Your task to perform on an android device: uninstall "Etsy: Buy & Sell Unique Items" Image 0: 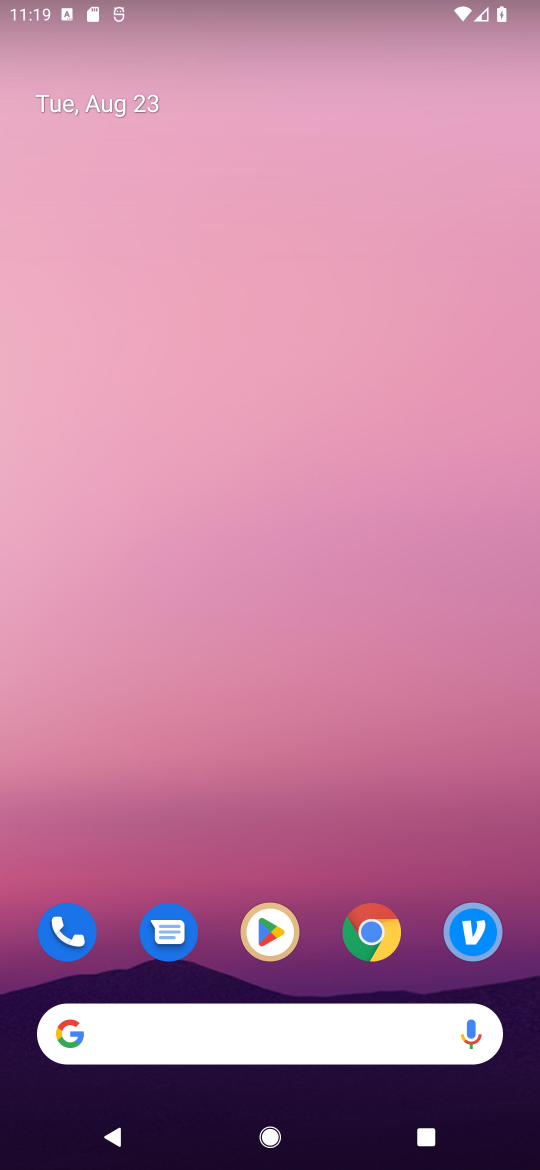
Step 0: click (264, 912)
Your task to perform on an android device: uninstall "Etsy: Buy & Sell Unique Items" Image 1: 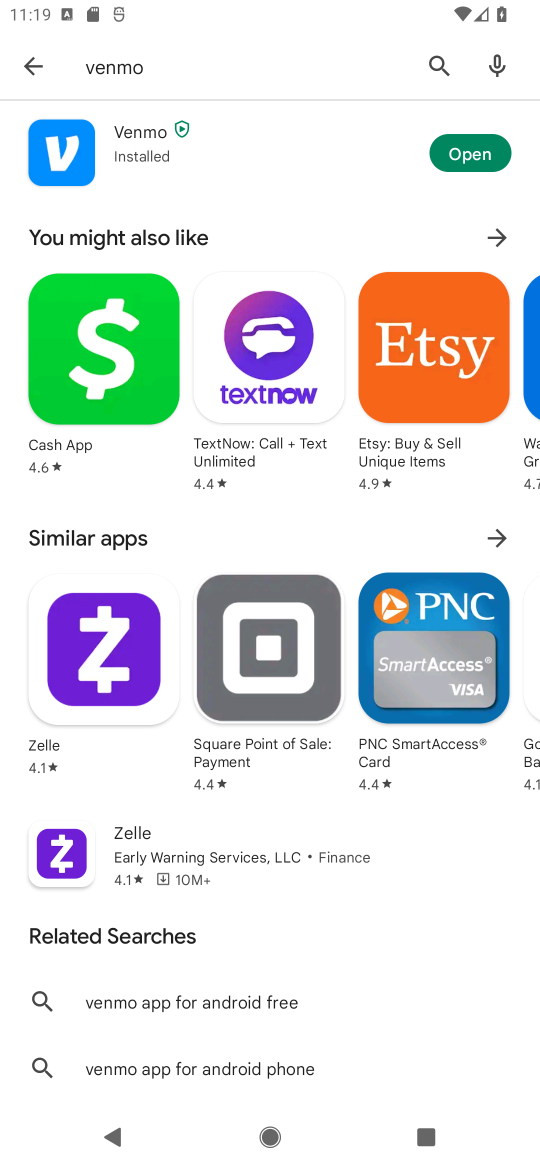
Step 1: click (441, 59)
Your task to perform on an android device: uninstall "Etsy: Buy & Sell Unique Items" Image 2: 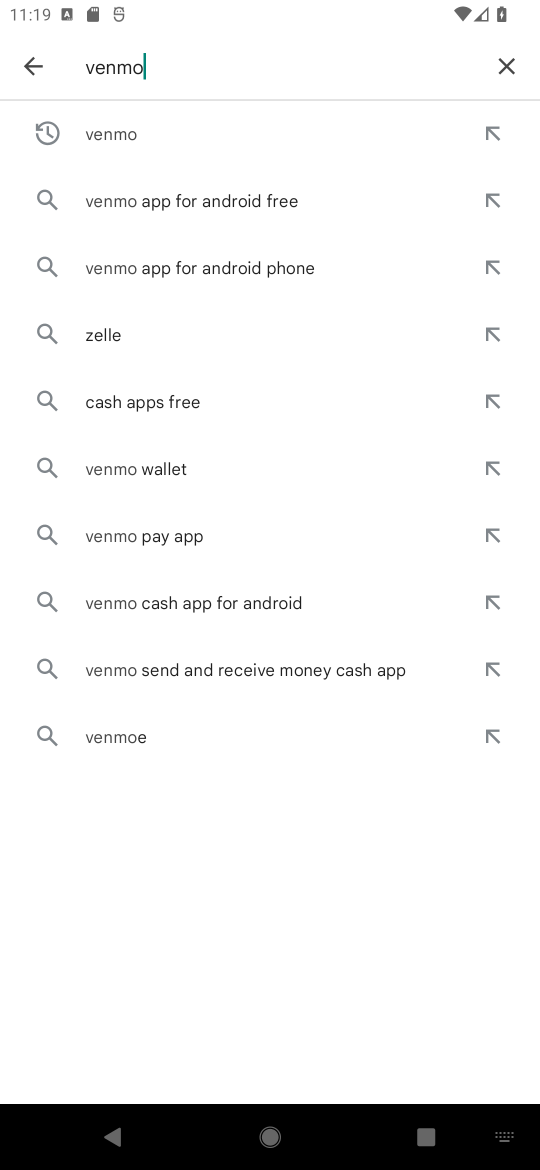
Step 2: click (523, 72)
Your task to perform on an android device: uninstall "Etsy: Buy & Sell Unique Items" Image 3: 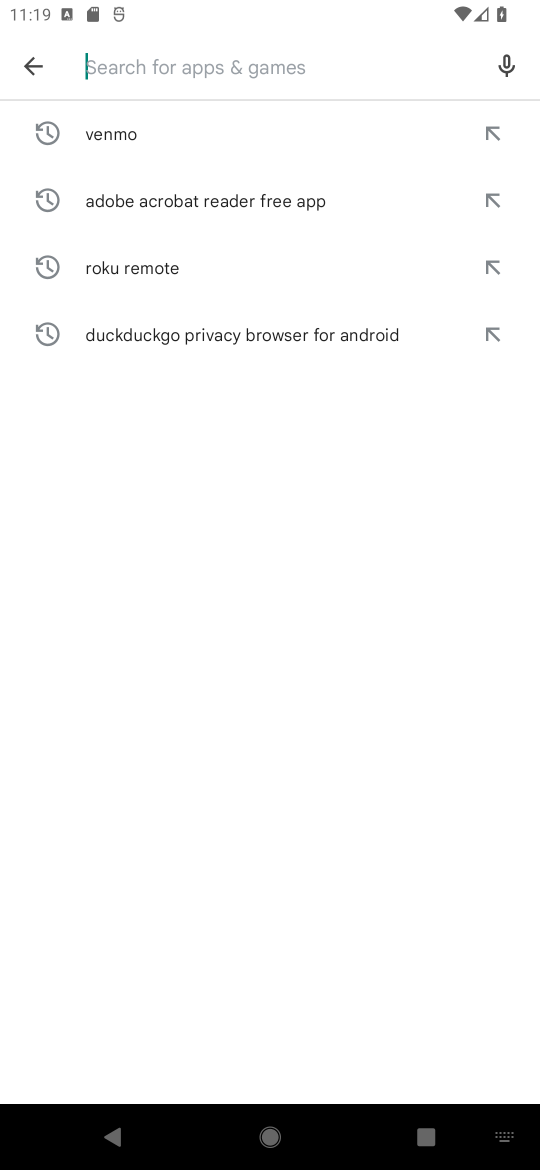
Step 3: click (144, 66)
Your task to perform on an android device: uninstall "Etsy: Buy & Sell Unique Items" Image 4: 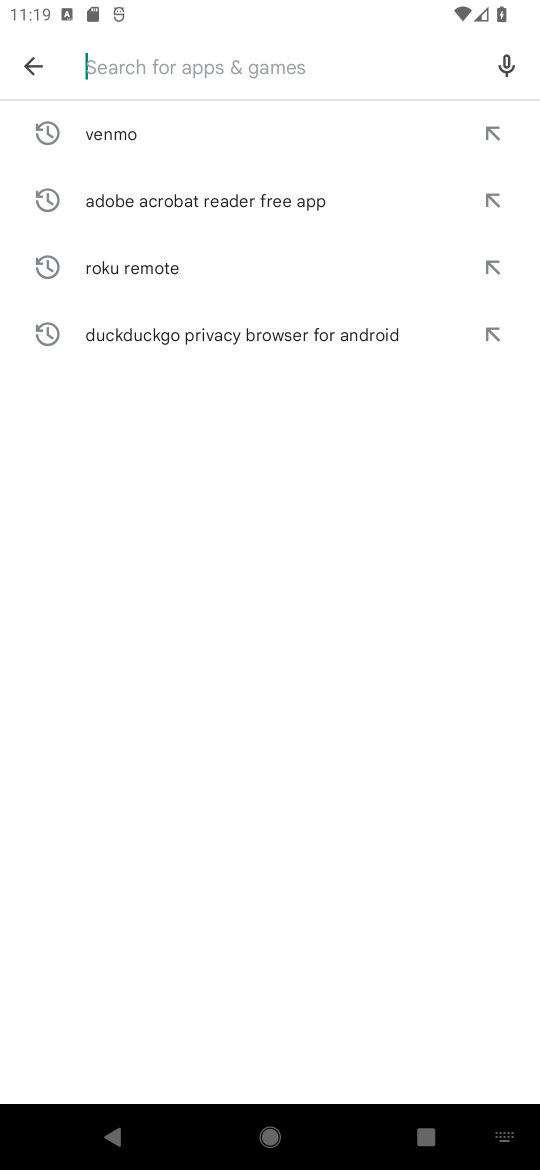
Step 4: type "Etsy"
Your task to perform on an android device: uninstall "Etsy: Buy & Sell Unique Items" Image 5: 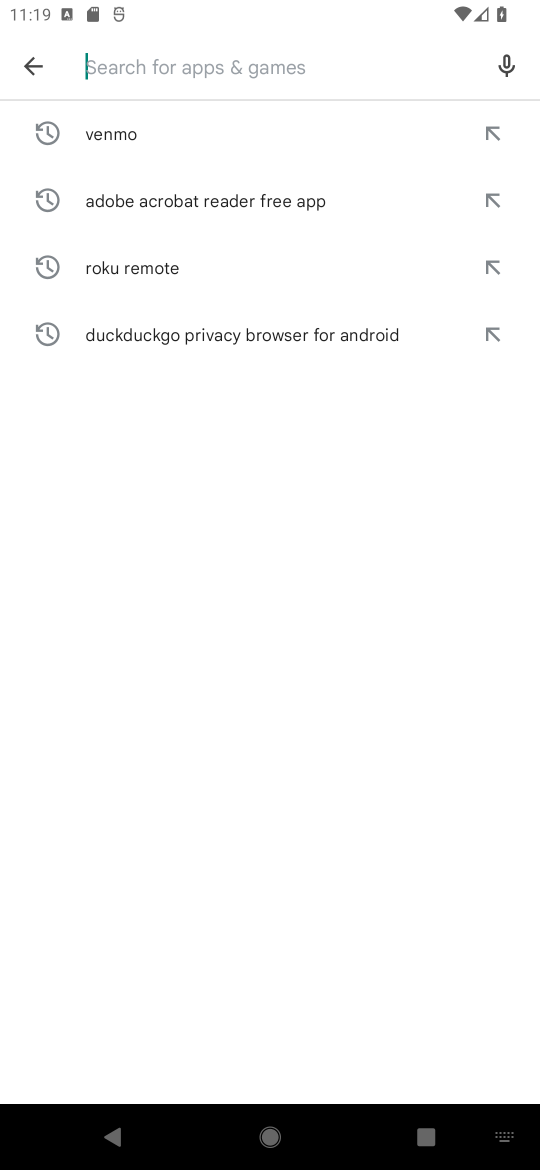
Step 5: click (251, 712)
Your task to perform on an android device: uninstall "Etsy: Buy & Sell Unique Items" Image 6: 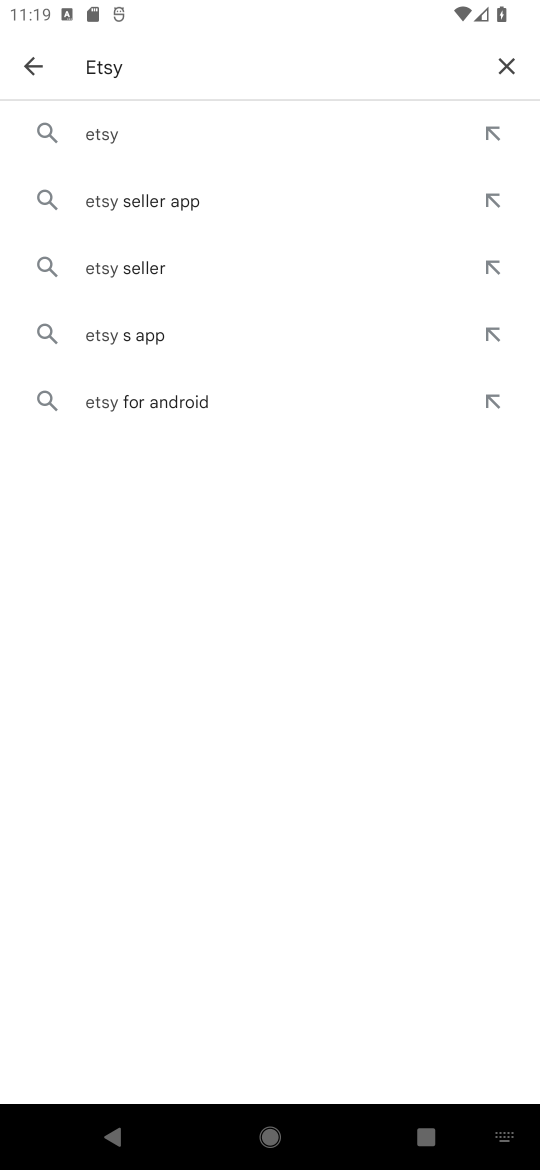
Step 6: click (117, 114)
Your task to perform on an android device: uninstall "Etsy: Buy & Sell Unique Items" Image 7: 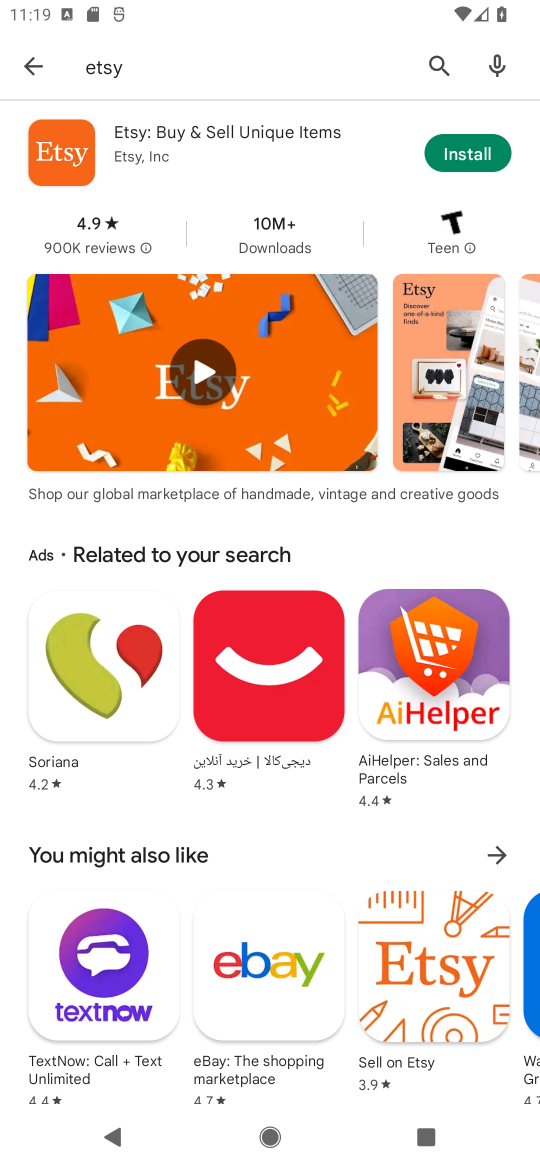
Step 7: task complete